Your task to perform on an android device: When is my next appointment? Image 0: 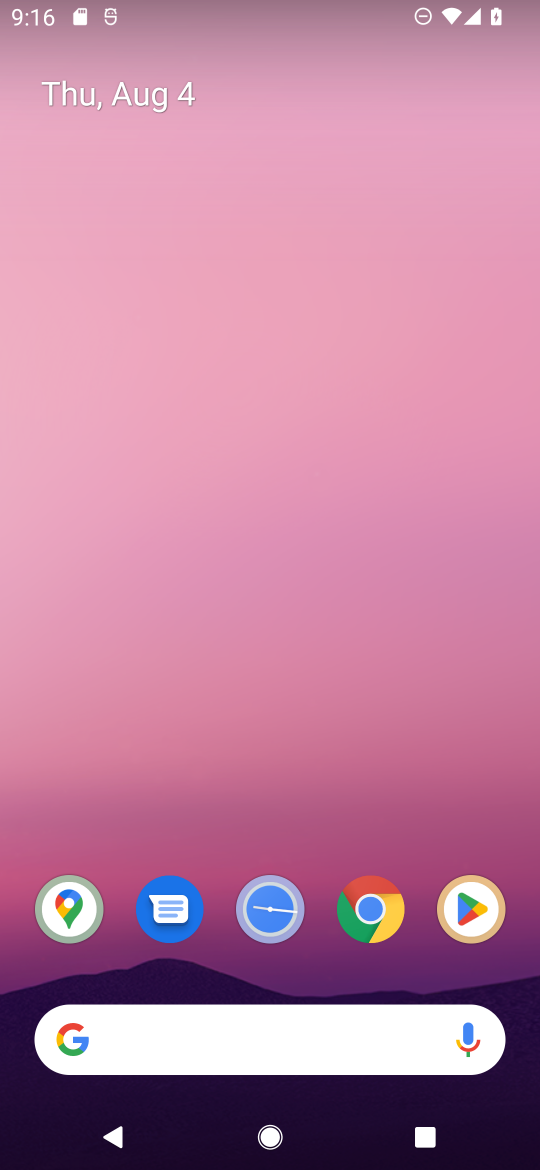
Step 0: drag from (320, 802) to (327, 177)
Your task to perform on an android device: When is my next appointment? Image 1: 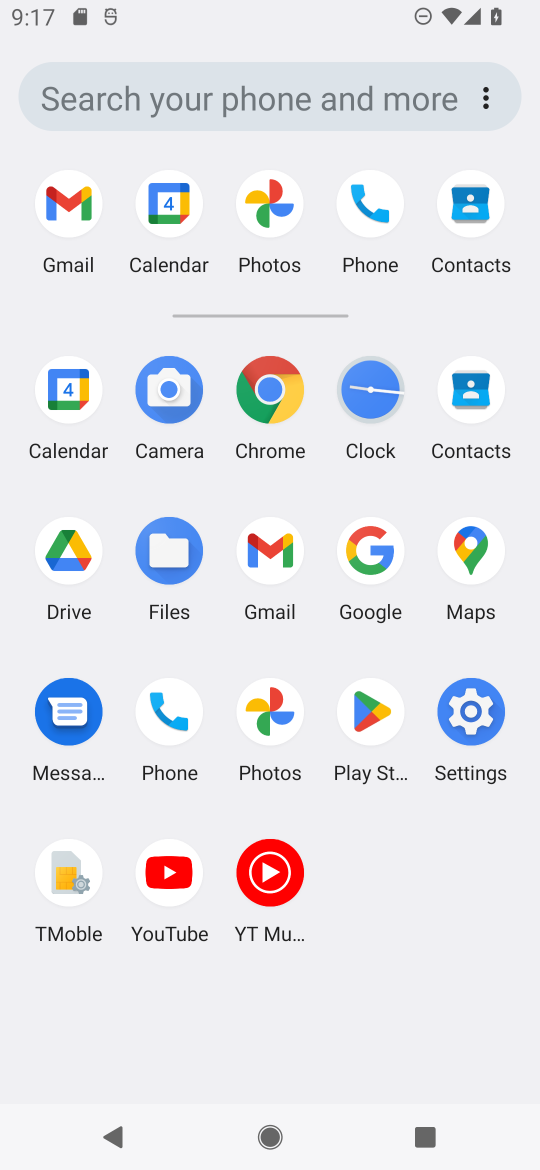
Step 1: click (76, 397)
Your task to perform on an android device: When is my next appointment? Image 2: 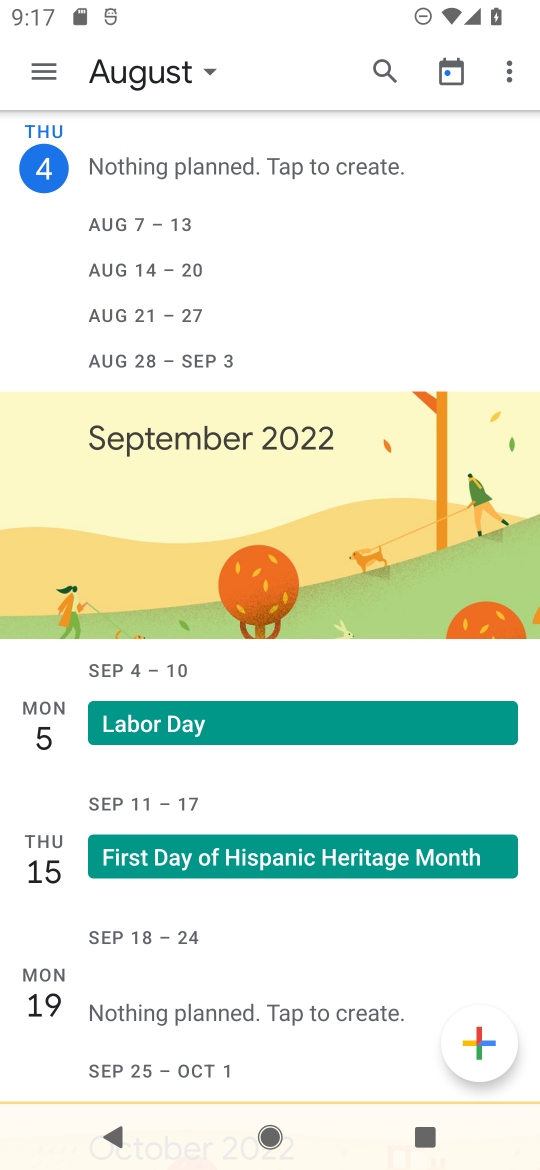
Step 2: task complete